Your task to perform on an android device: toggle improve location accuracy Image 0: 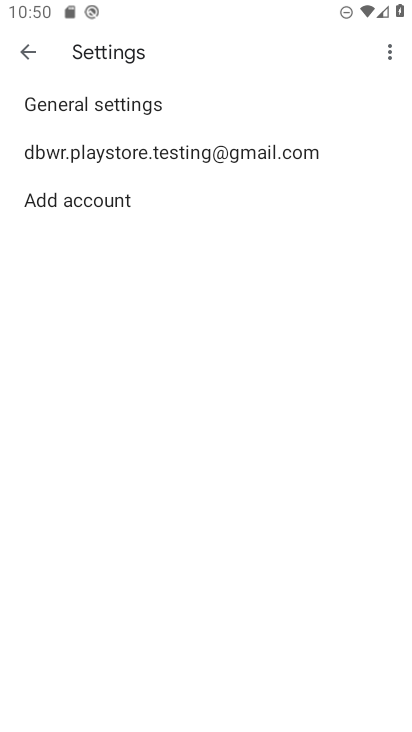
Step 0: press home button
Your task to perform on an android device: toggle improve location accuracy Image 1: 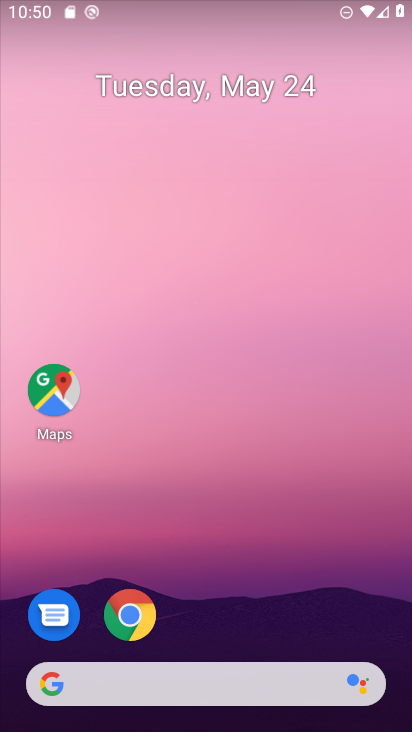
Step 1: drag from (252, 708) to (410, 153)
Your task to perform on an android device: toggle improve location accuracy Image 2: 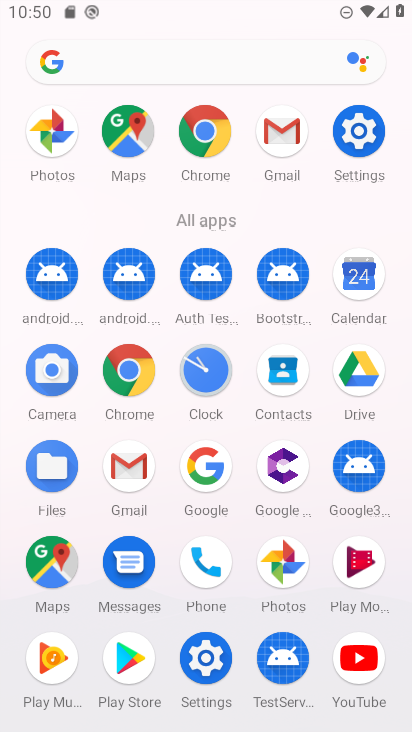
Step 2: click (361, 140)
Your task to perform on an android device: toggle improve location accuracy Image 3: 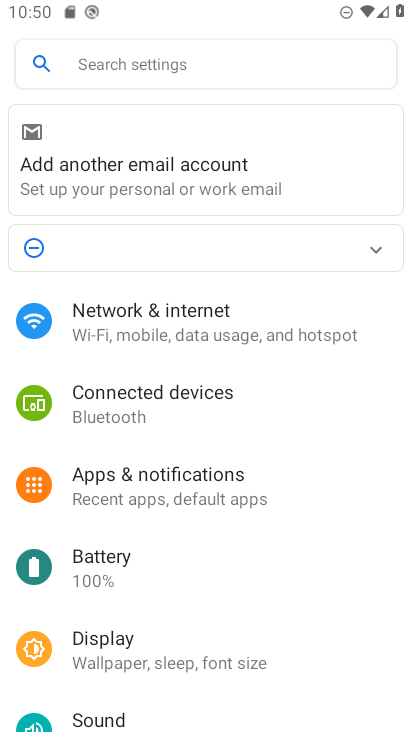
Step 3: click (178, 66)
Your task to perform on an android device: toggle improve location accuracy Image 4: 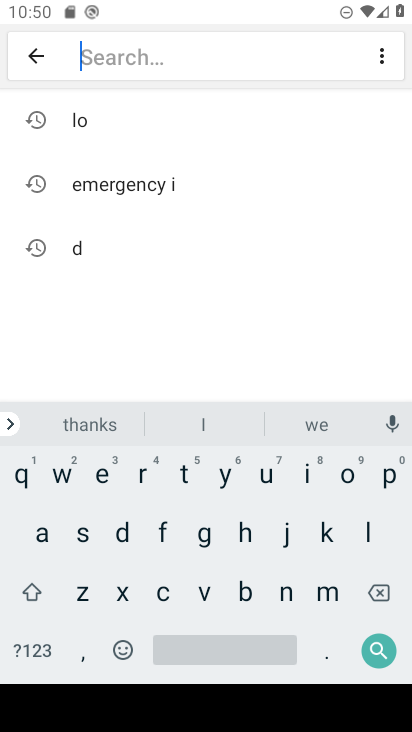
Step 4: click (122, 125)
Your task to perform on an android device: toggle improve location accuracy Image 5: 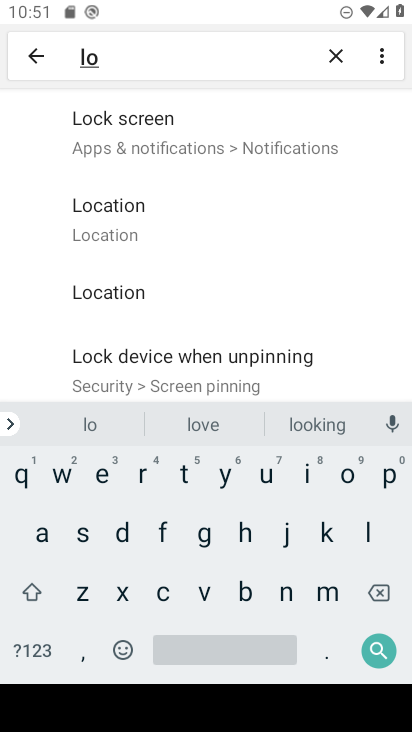
Step 5: click (136, 220)
Your task to perform on an android device: toggle improve location accuracy Image 6: 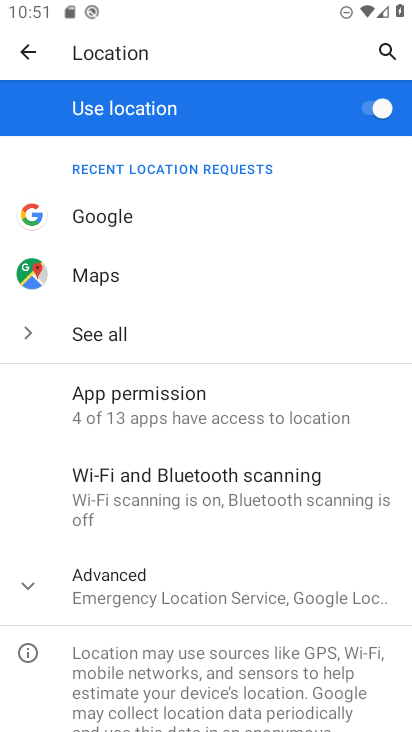
Step 6: click (41, 590)
Your task to perform on an android device: toggle improve location accuracy Image 7: 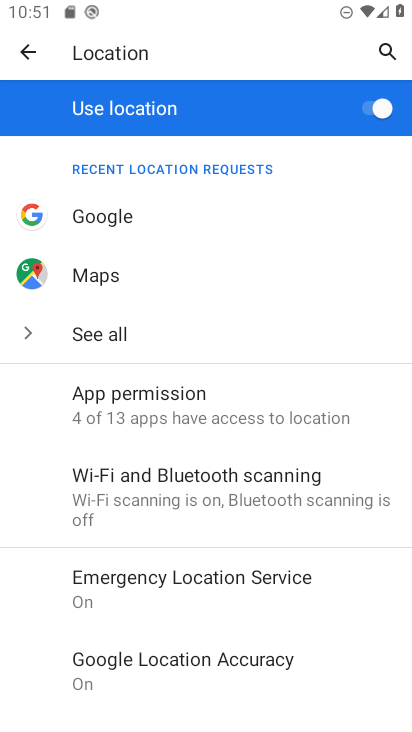
Step 7: click (229, 671)
Your task to perform on an android device: toggle improve location accuracy Image 8: 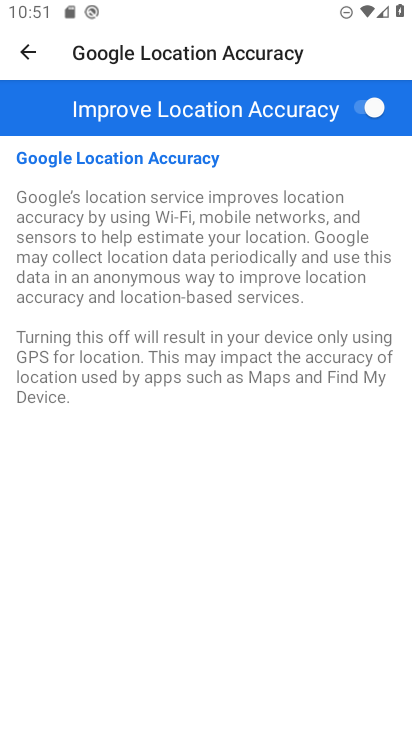
Step 8: task complete